Your task to perform on an android device: see sites visited before in the chrome app Image 0: 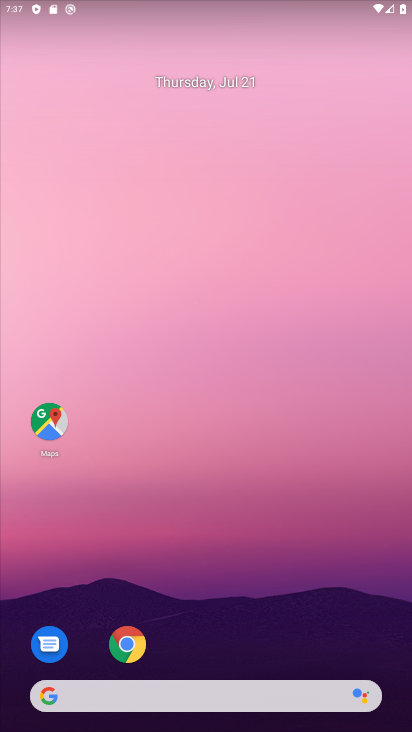
Step 0: drag from (355, 609) to (410, 306)
Your task to perform on an android device: see sites visited before in the chrome app Image 1: 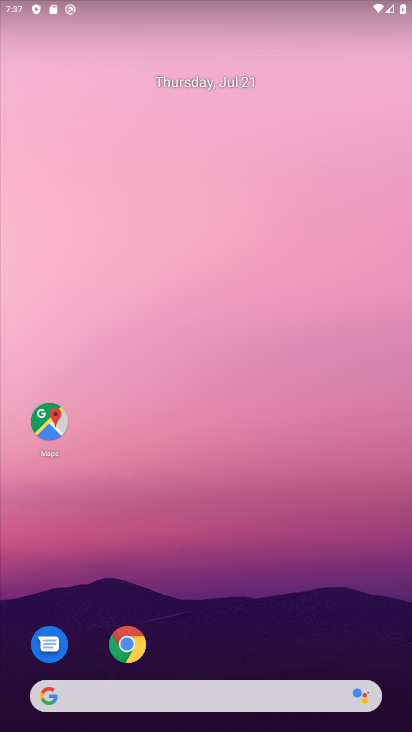
Step 1: drag from (371, 570) to (324, 88)
Your task to perform on an android device: see sites visited before in the chrome app Image 2: 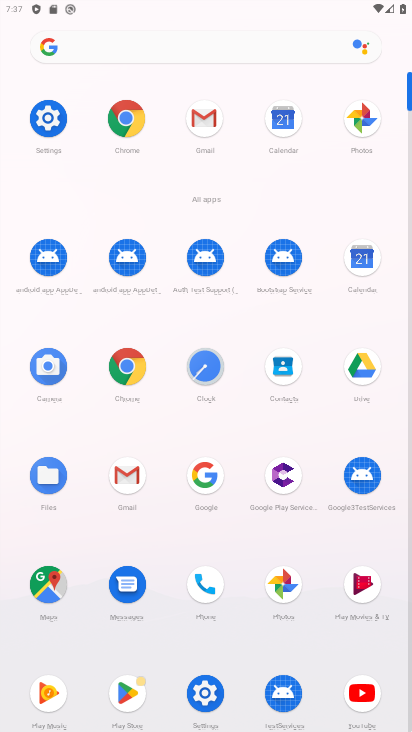
Step 2: click (124, 373)
Your task to perform on an android device: see sites visited before in the chrome app Image 3: 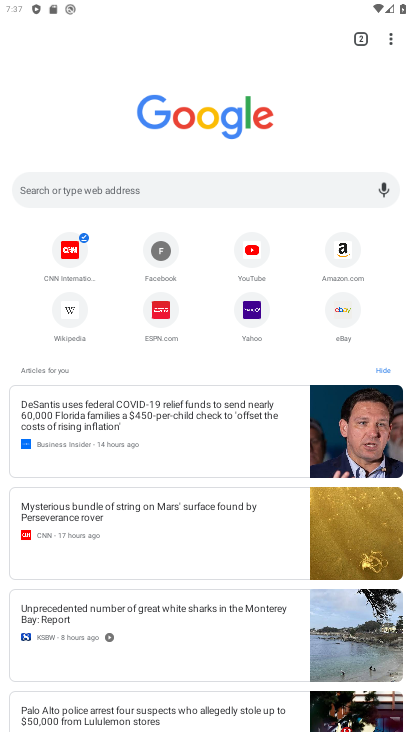
Step 3: click (390, 40)
Your task to perform on an android device: see sites visited before in the chrome app Image 4: 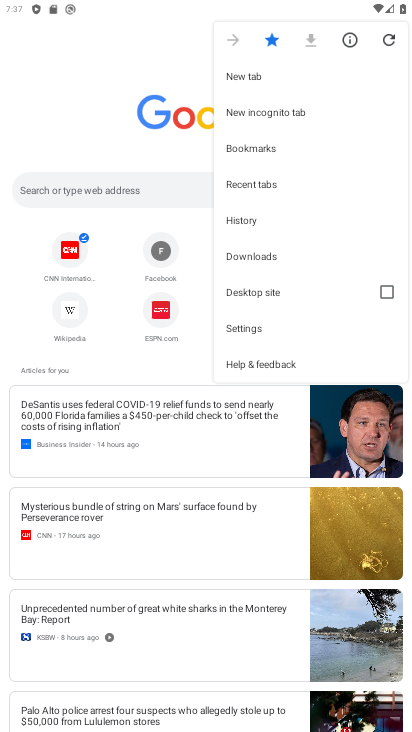
Step 4: click (251, 225)
Your task to perform on an android device: see sites visited before in the chrome app Image 5: 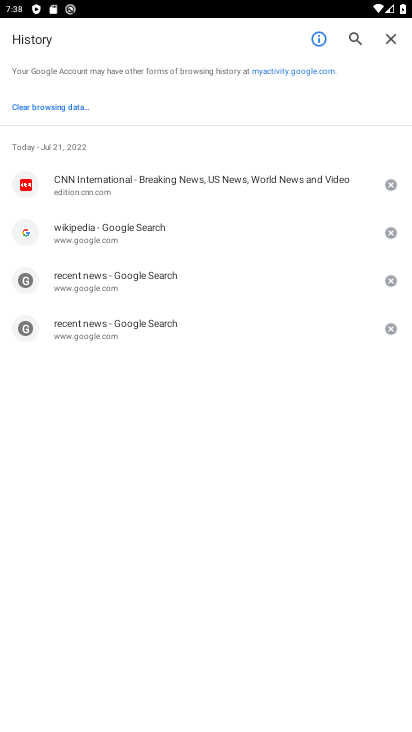
Step 5: task complete